Your task to perform on an android device: add a contact Image 0: 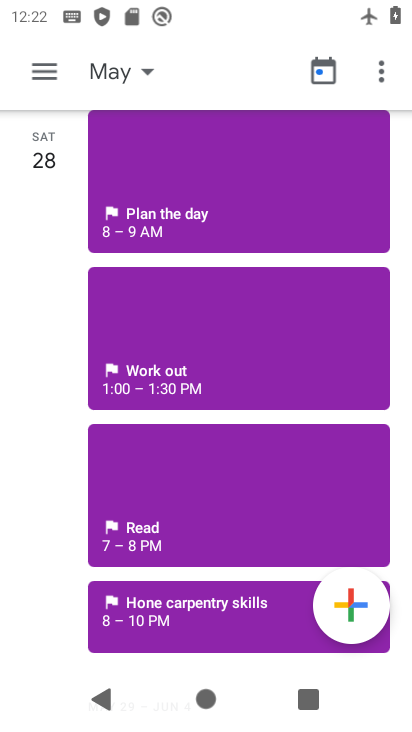
Step 0: press home button
Your task to perform on an android device: add a contact Image 1: 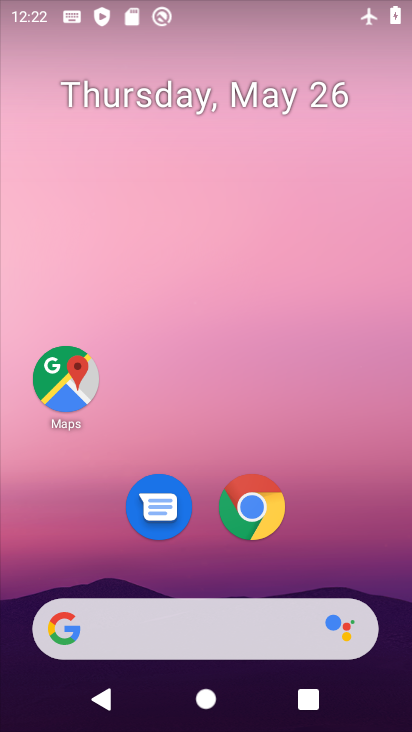
Step 1: drag from (225, 574) to (273, 248)
Your task to perform on an android device: add a contact Image 2: 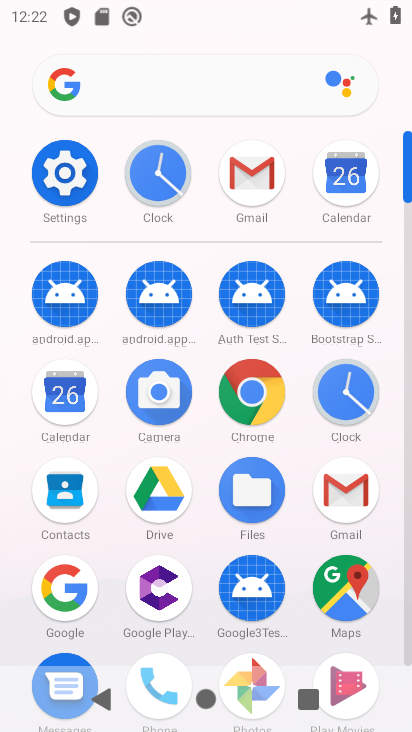
Step 2: click (78, 477)
Your task to perform on an android device: add a contact Image 3: 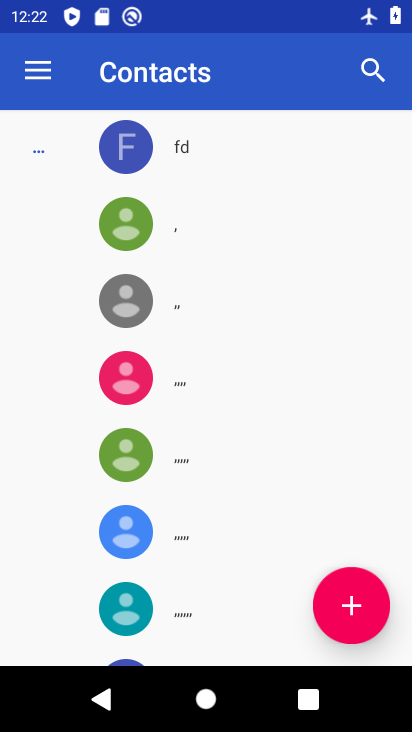
Step 3: click (352, 581)
Your task to perform on an android device: add a contact Image 4: 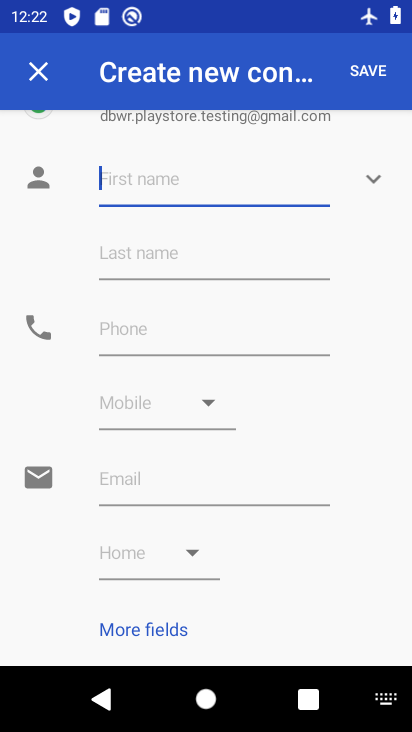
Step 4: type "fhsdg"
Your task to perform on an android device: add a contact Image 5: 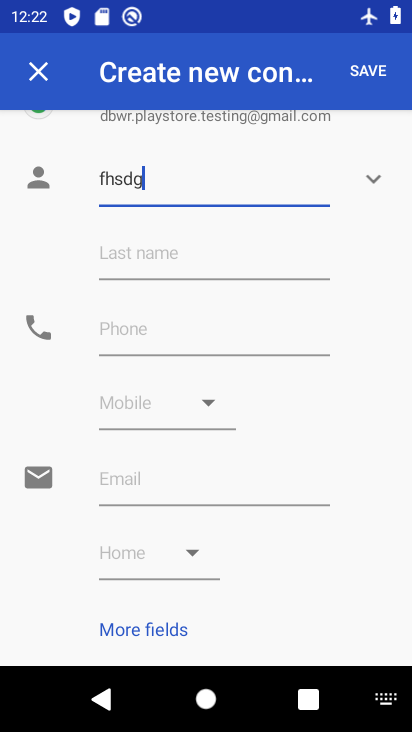
Step 5: click (203, 322)
Your task to perform on an android device: add a contact Image 6: 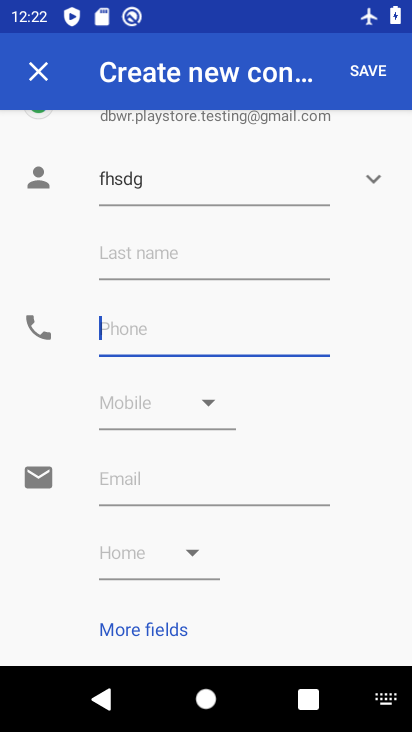
Step 6: type "8678767977"
Your task to perform on an android device: add a contact Image 7: 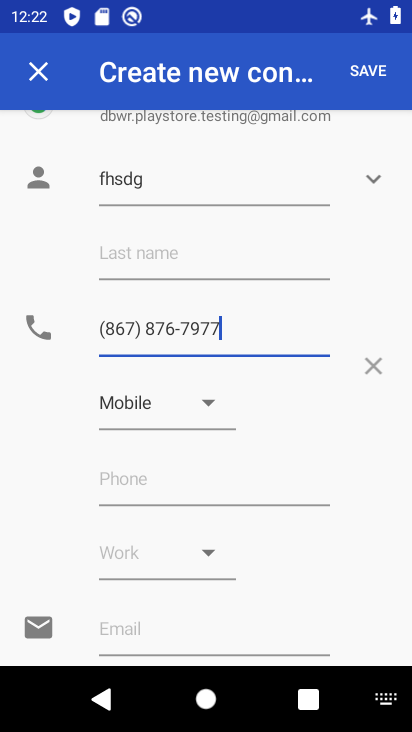
Step 7: click (353, 76)
Your task to perform on an android device: add a contact Image 8: 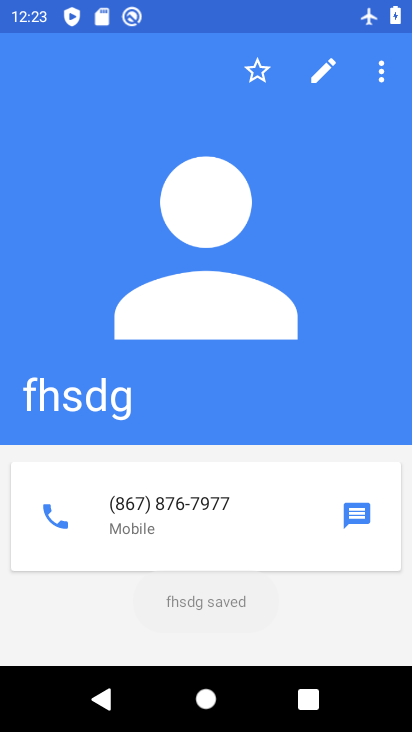
Step 8: task complete